Your task to perform on an android device: stop showing notifications on the lock screen Image 0: 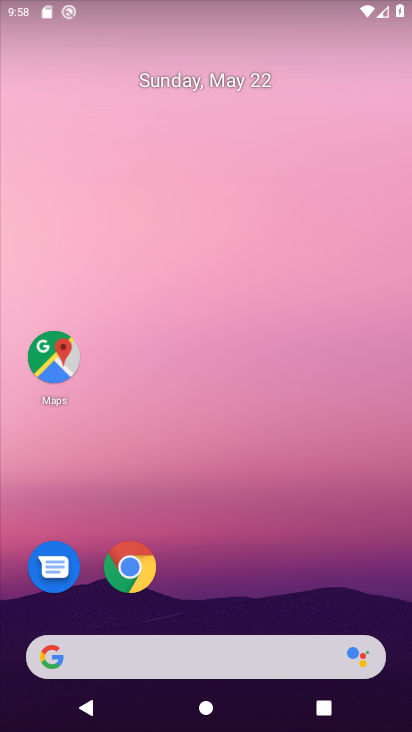
Step 0: press home button
Your task to perform on an android device: stop showing notifications on the lock screen Image 1: 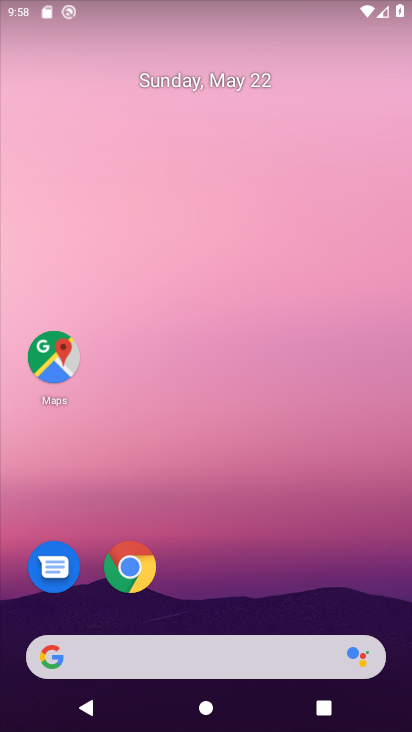
Step 1: drag from (218, 606) to (222, 66)
Your task to perform on an android device: stop showing notifications on the lock screen Image 2: 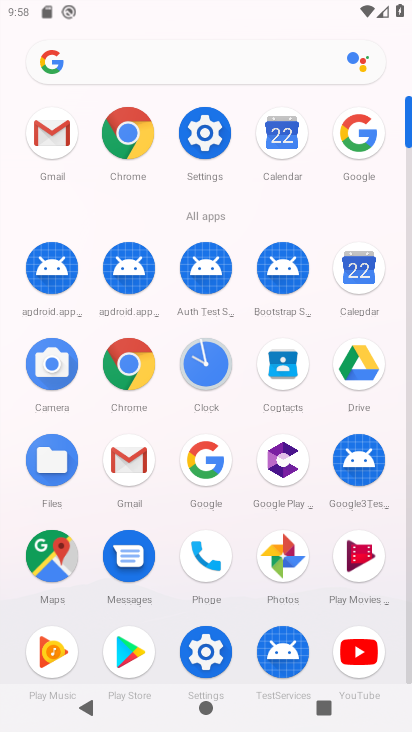
Step 2: click (200, 129)
Your task to perform on an android device: stop showing notifications on the lock screen Image 3: 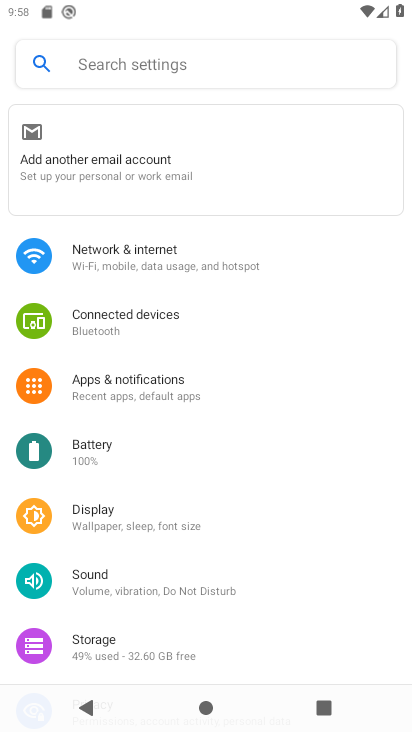
Step 3: click (199, 382)
Your task to perform on an android device: stop showing notifications on the lock screen Image 4: 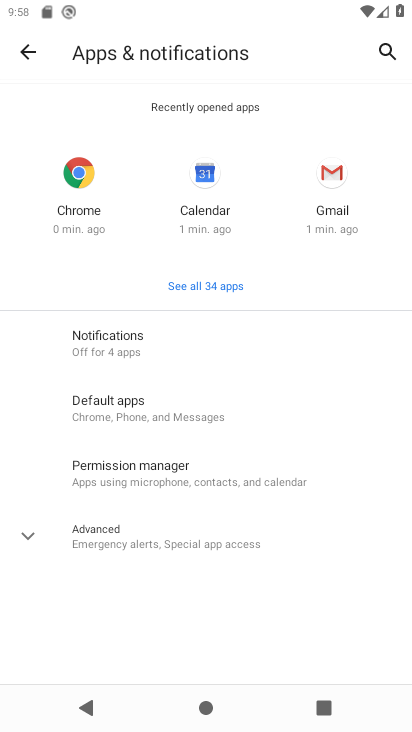
Step 4: click (154, 343)
Your task to perform on an android device: stop showing notifications on the lock screen Image 5: 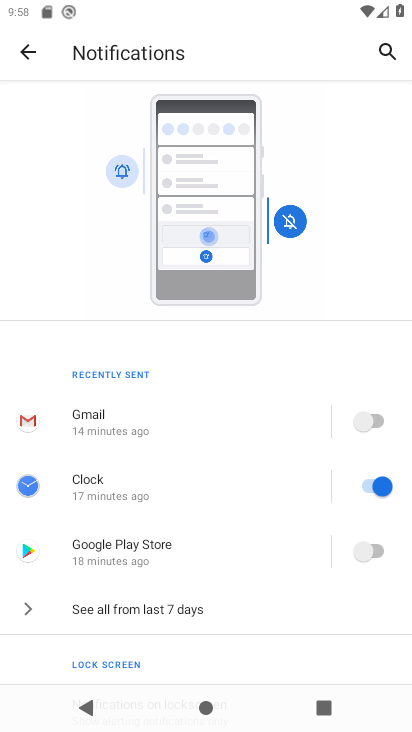
Step 5: drag from (212, 650) to (259, 194)
Your task to perform on an android device: stop showing notifications on the lock screen Image 6: 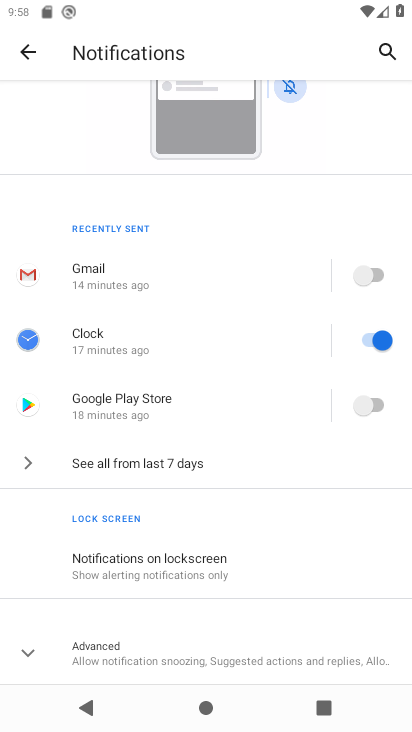
Step 6: click (191, 577)
Your task to perform on an android device: stop showing notifications on the lock screen Image 7: 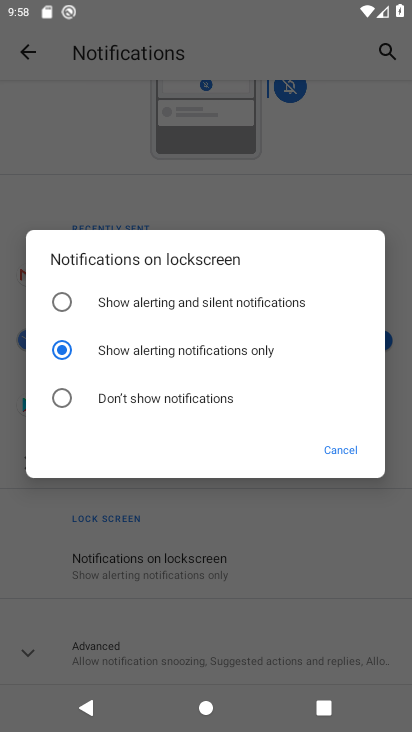
Step 7: click (62, 394)
Your task to perform on an android device: stop showing notifications on the lock screen Image 8: 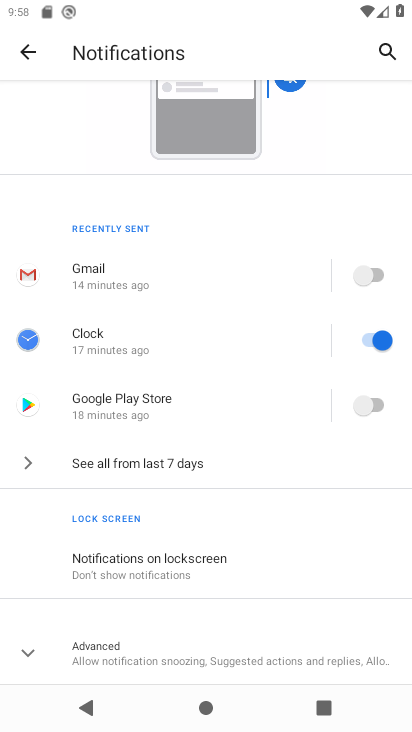
Step 8: task complete